Your task to perform on an android device: turn on improve location accuracy Image 0: 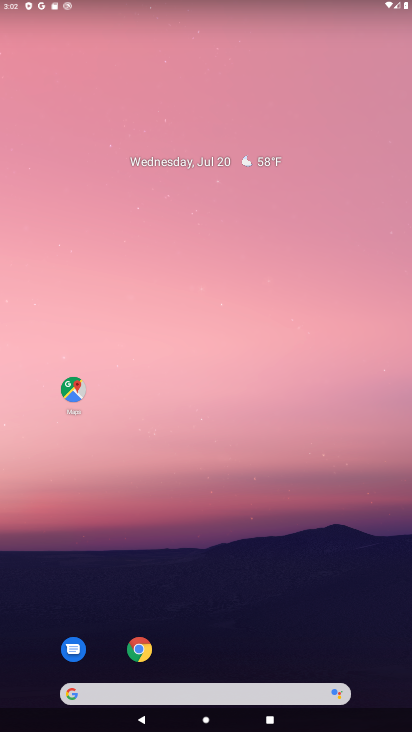
Step 0: drag from (226, 727) to (183, 217)
Your task to perform on an android device: turn on improve location accuracy Image 1: 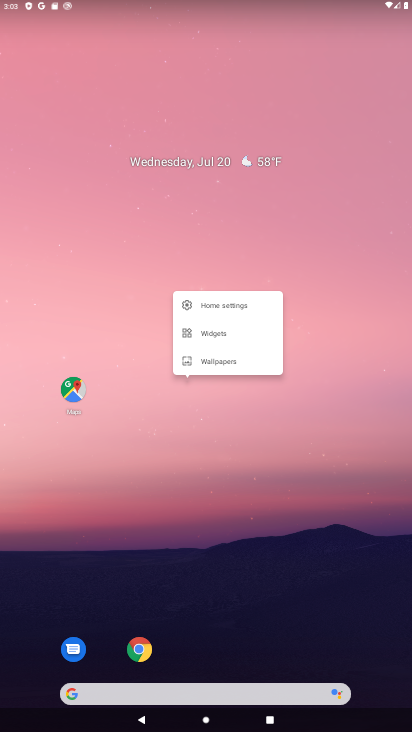
Step 1: click (215, 518)
Your task to perform on an android device: turn on improve location accuracy Image 2: 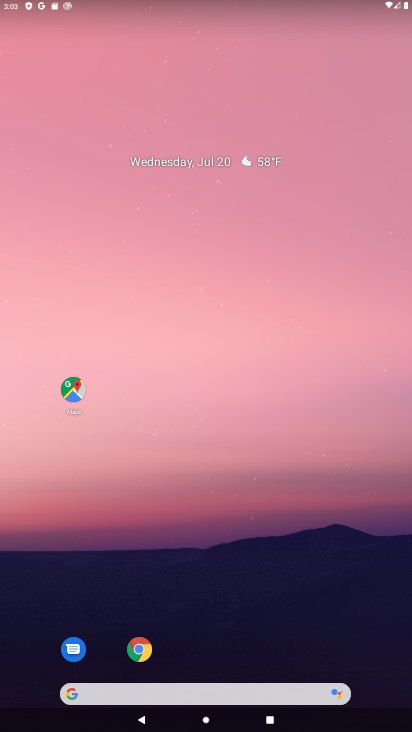
Step 2: drag from (182, 725) to (162, 186)
Your task to perform on an android device: turn on improve location accuracy Image 3: 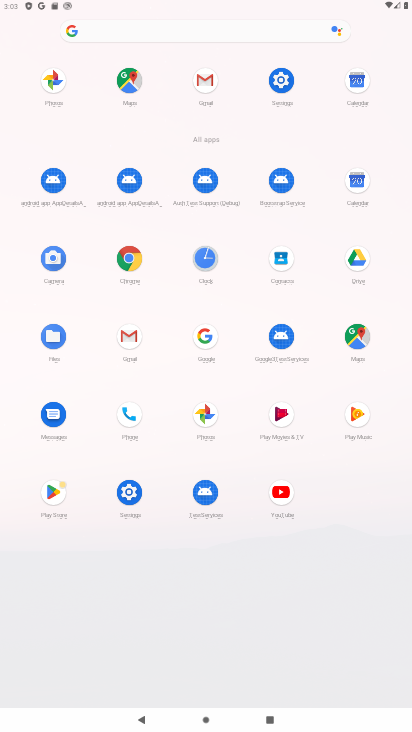
Step 3: click (285, 78)
Your task to perform on an android device: turn on improve location accuracy Image 4: 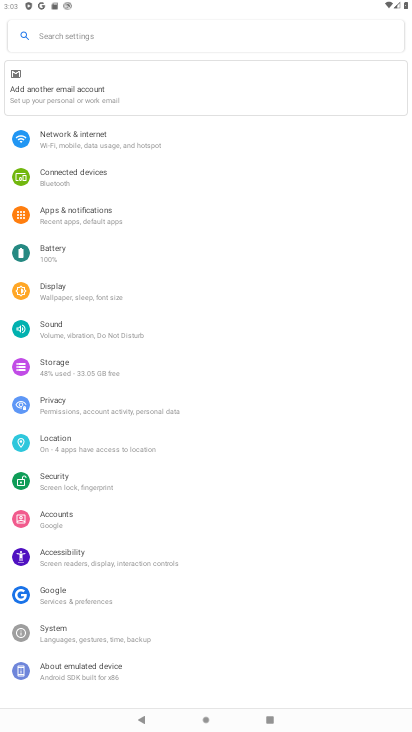
Step 4: click (54, 447)
Your task to perform on an android device: turn on improve location accuracy Image 5: 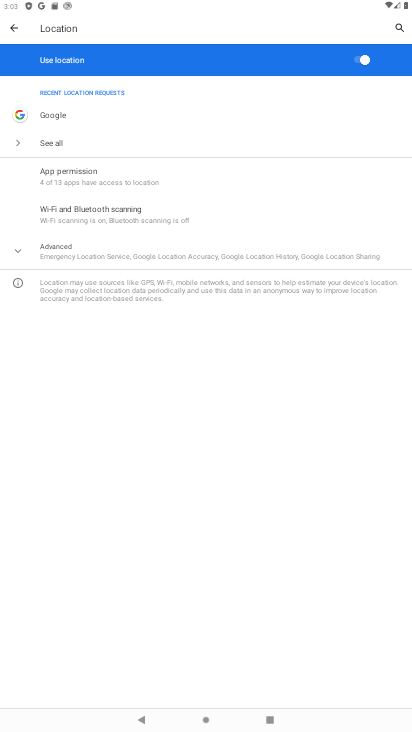
Step 5: click (50, 248)
Your task to perform on an android device: turn on improve location accuracy Image 6: 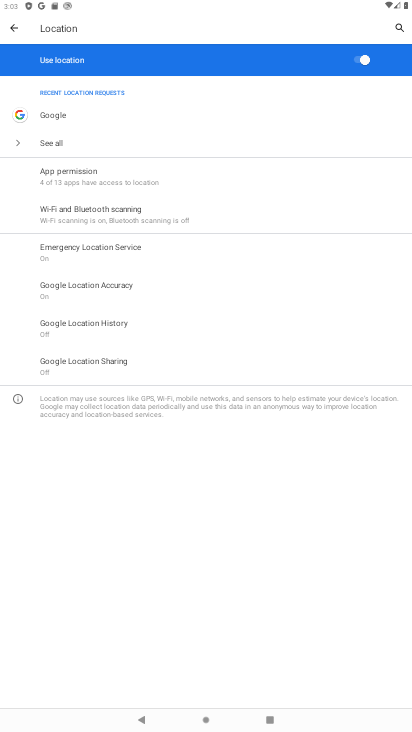
Step 6: click (77, 284)
Your task to perform on an android device: turn on improve location accuracy Image 7: 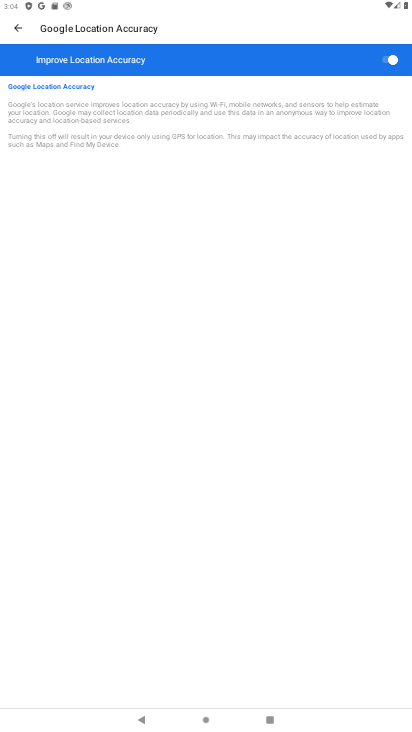
Step 7: task complete